Your task to perform on an android device: snooze an email in the gmail app Image 0: 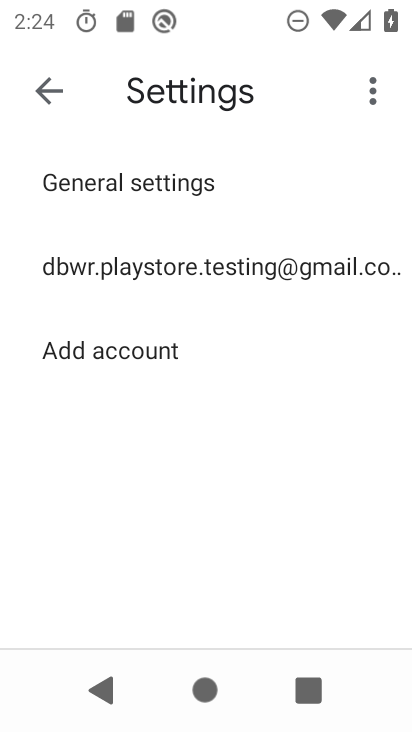
Step 0: press home button
Your task to perform on an android device: snooze an email in the gmail app Image 1: 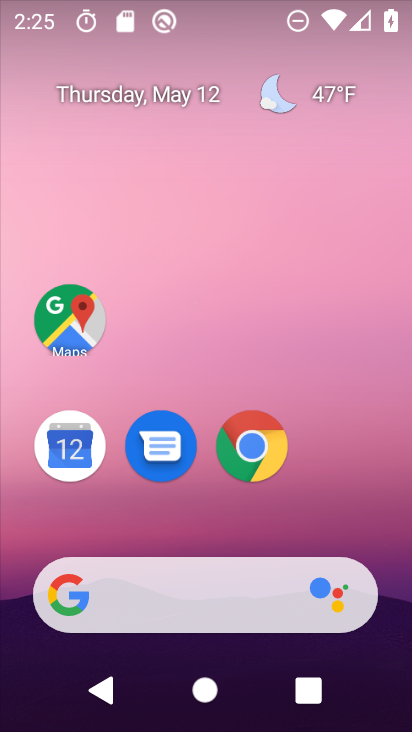
Step 1: drag from (196, 523) to (196, 187)
Your task to perform on an android device: snooze an email in the gmail app Image 2: 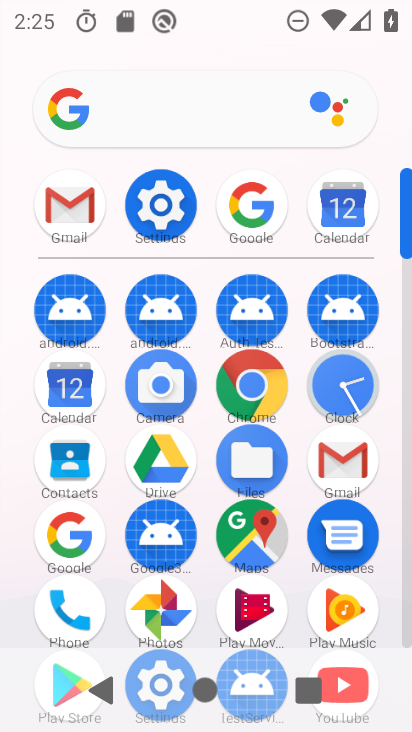
Step 2: click (68, 220)
Your task to perform on an android device: snooze an email in the gmail app Image 3: 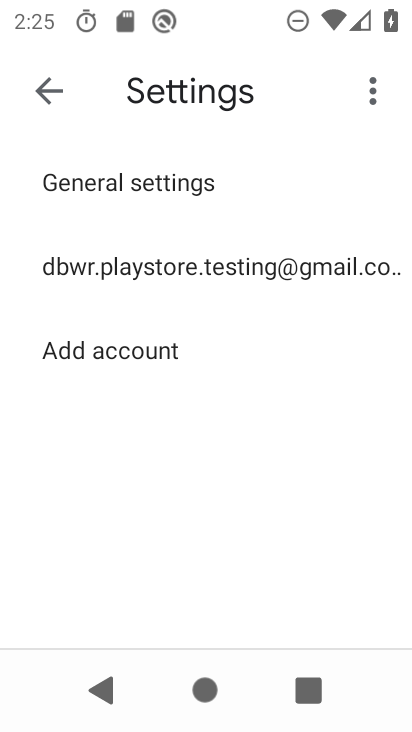
Step 3: click (61, 92)
Your task to perform on an android device: snooze an email in the gmail app Image 4: 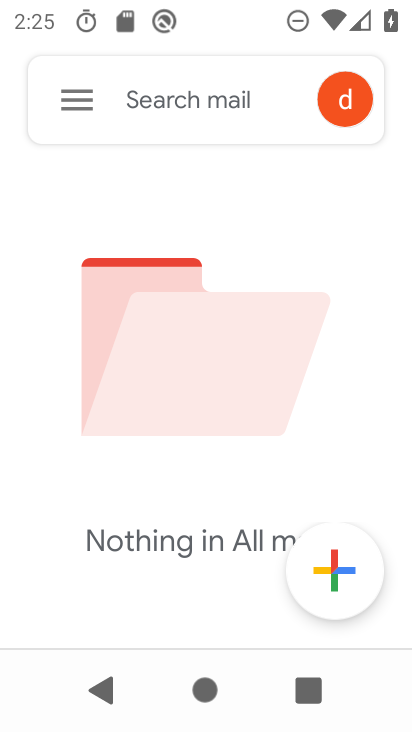
Step 4: click (61, 92)
Your task to perform on an android device: snooze an email in the gmail app Image 5: 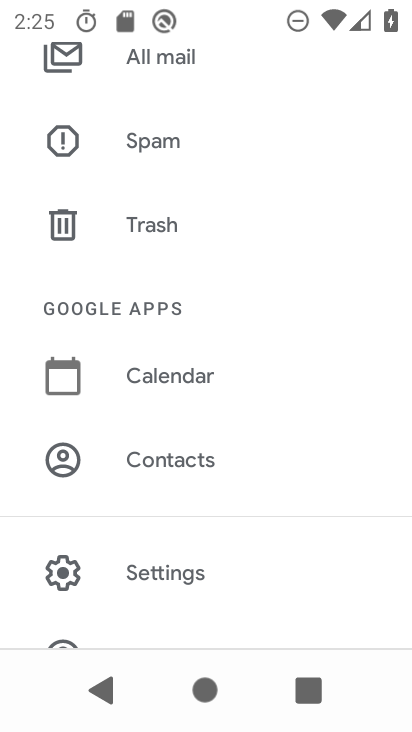
Step 5: click (199, 61)
Your task to perform on an android device: snooze an email in the gmail app Image 6: 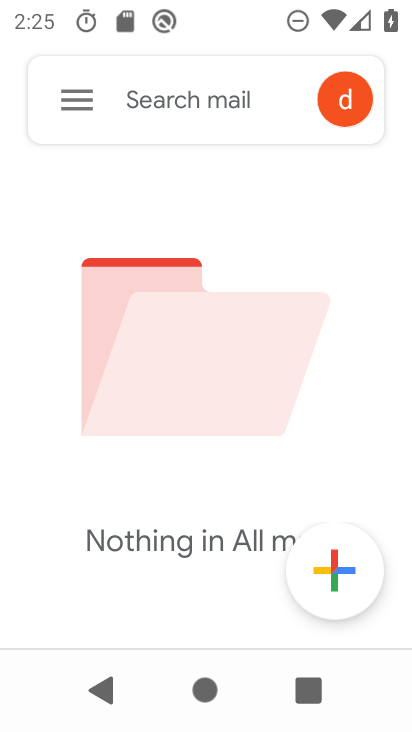
Step 6: click (60, 89)
Your task to perform on an android device: snooze an email in the gmail app Image 7: 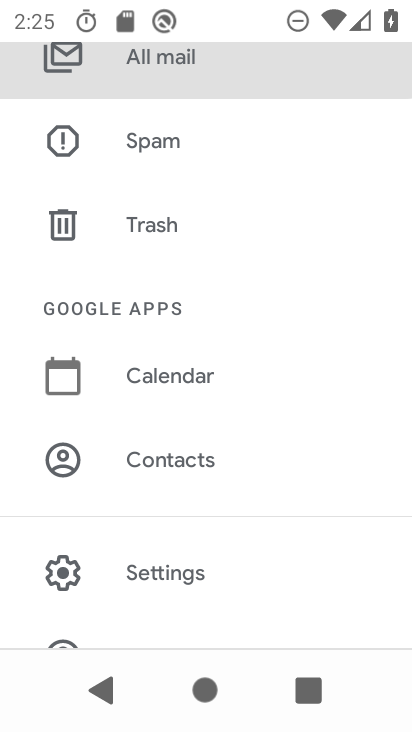
Step 7: task complete